Your task to perform on an android device: Open the phone app and click the voicemail tab. Image 0: 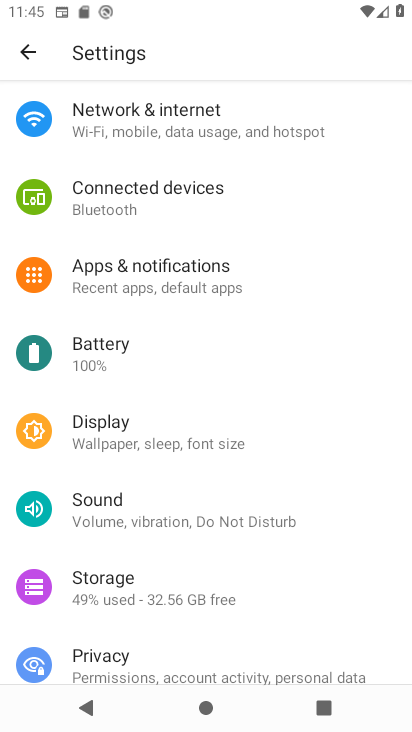
Step 0: press home button
Your task to perform on an android device: Open the phone app and click the voicemail tab. Image 1: 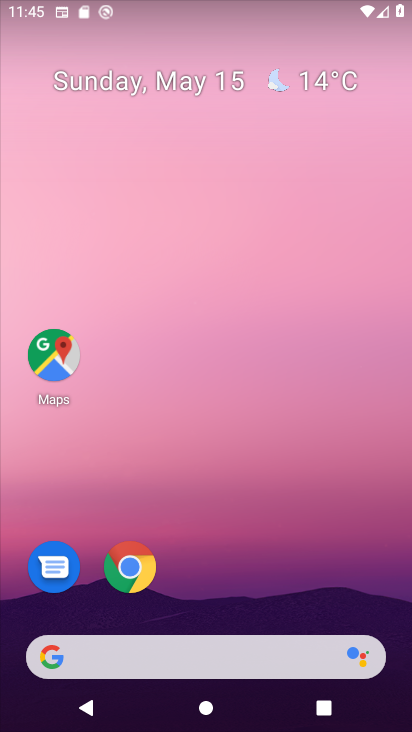
Step 1: drag from (151, 595) to (180, 113)
Your task to perform on an android device: Open the phone app and click the voicemail tab. Image 2: 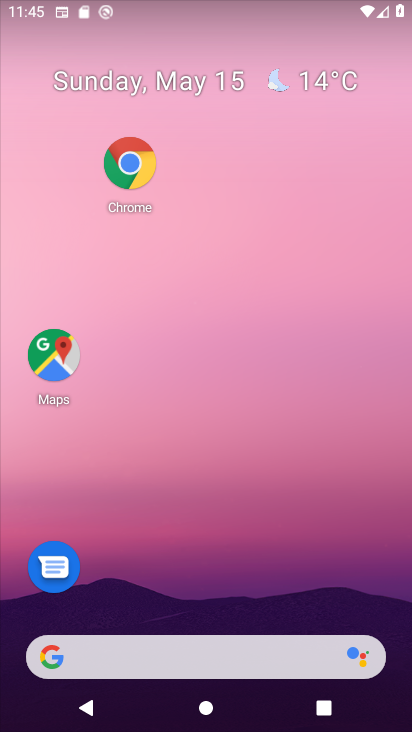
Step 2: drag from (252, 356) to (237, 104)
Your task to perform on an android device: Open the phone app and click the voicemail tab. Image 3: 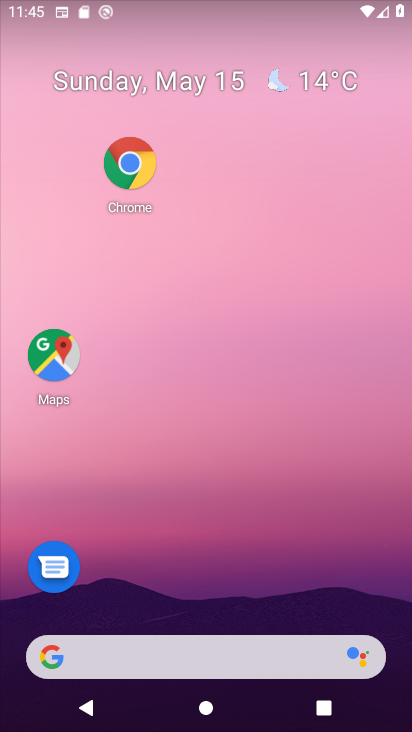
Step 3: drag from (201, 617) to (257, 77)
Your task to perform on an android device: Open the phone app and click the voicemail tab. Image 4: 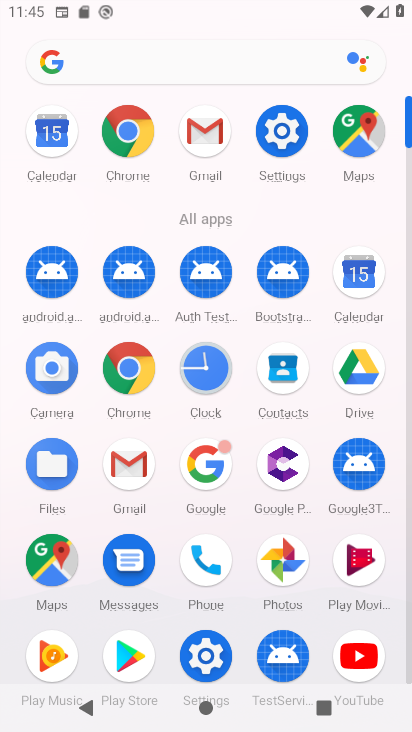
Step 4: click (209, 574)
Your task to perform on an android device: Open the phone app and click the voicemail tab. Image 5: 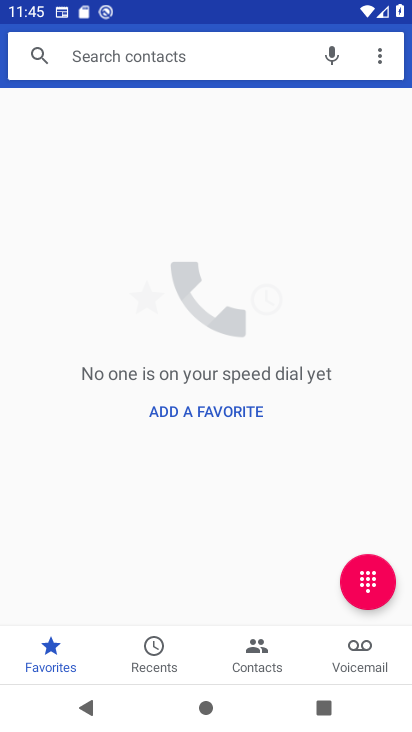
Step 5: click (357, 673)
Your task to perform on an android device: Open the phone app and click the voicemail tab. Image 6: 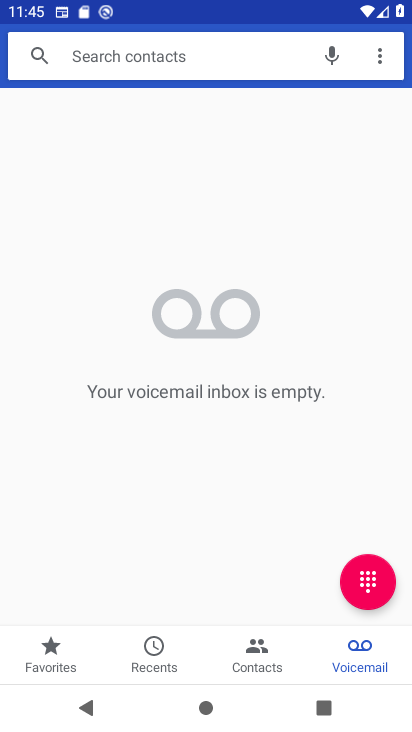
Step 6: task complete